Your task to perform on an android device: check out phone information Image 0: 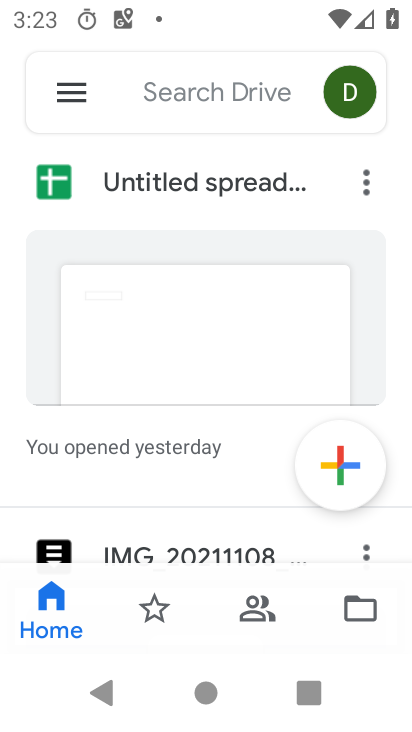
Step 0: press home button
Your task to perform on an android device: check out phone information Image 1: 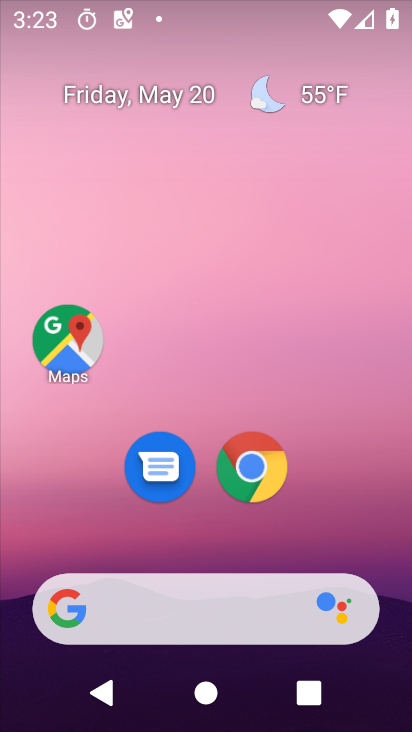
Step 1: drag from (179, 544) to (322, 40)
Your task to perform on an android device: check out phone information Image 2: 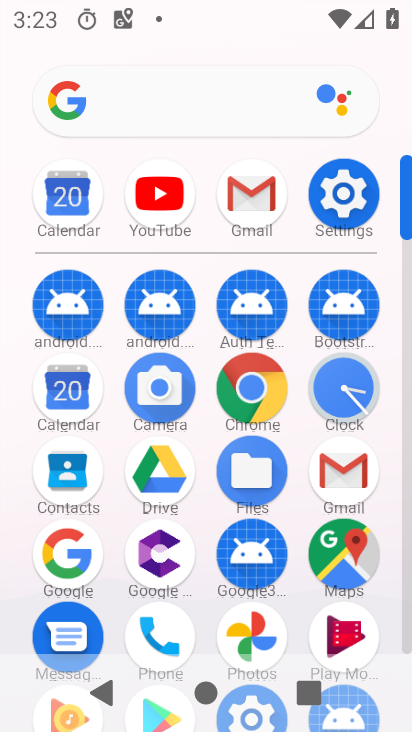
Step 2: click (336, 189)
Your task to perform on an android device: check out phone information Image 3: 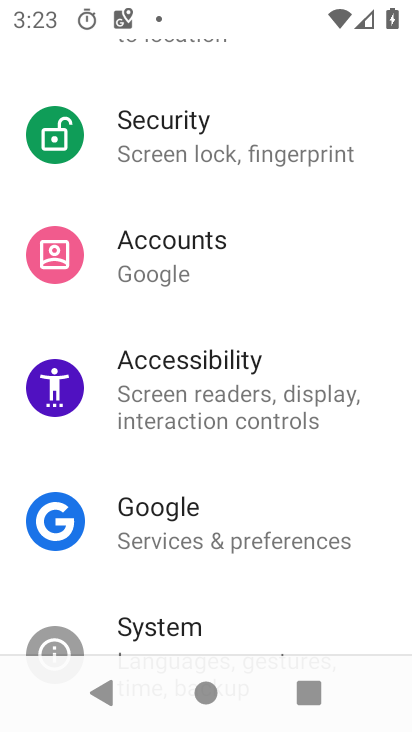
Step 3: drag from (278, 599) to (278, 164)
Your task to perform on an android device: check out phone information Image 4: 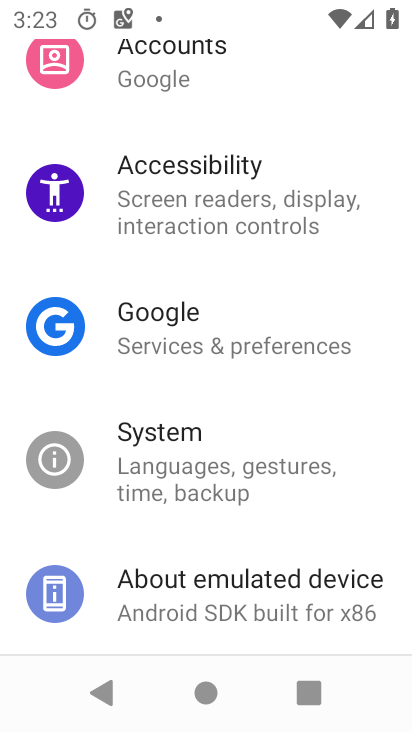
Step 4: click (188, 581)
Your task to perform on an android device: check out phone information Image 5: 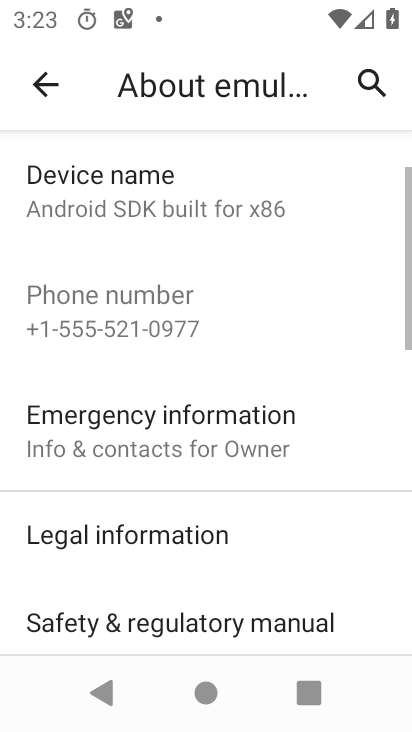
Step 5: task complete